Your task to perform on an android device: toggle notifications settings in the gmail app Image 0: 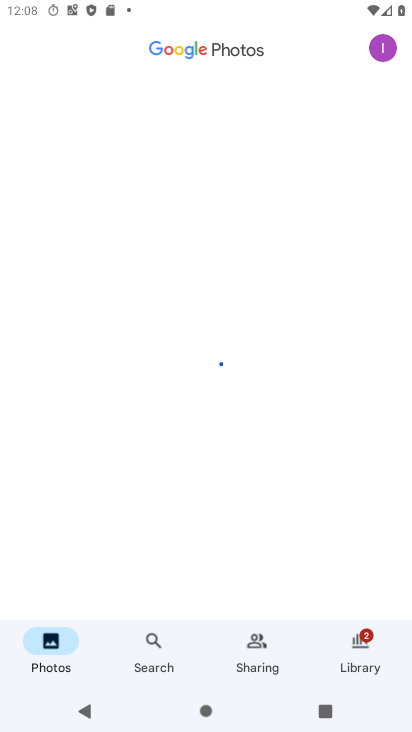
Step 0: press home button
Your task to perform on an android device: toggle notifications settings in the gmail app Image 1: 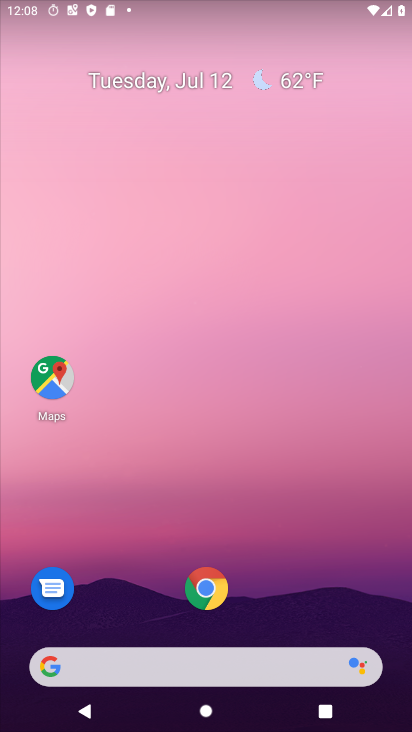
Step 1: drag from (180, 438) to (180, 261)
Your task to perform on an android device: toggle notifications settings in the gmail app Image 2: 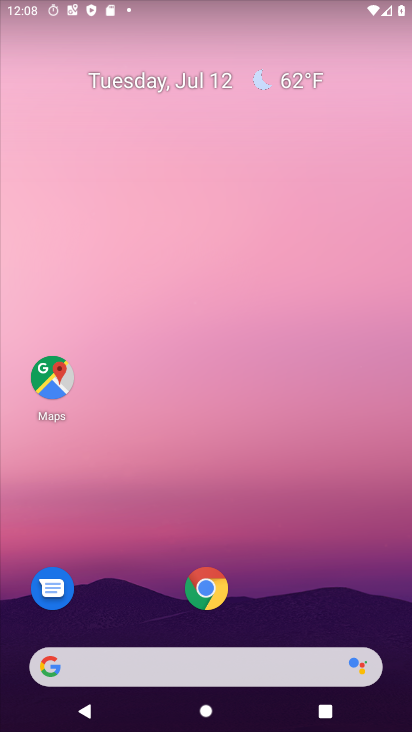
Step 2: drag from (124, 396) to (54, 162)
Your task to perform on an android device: toggle notifications settings in the gmail app Image 3: 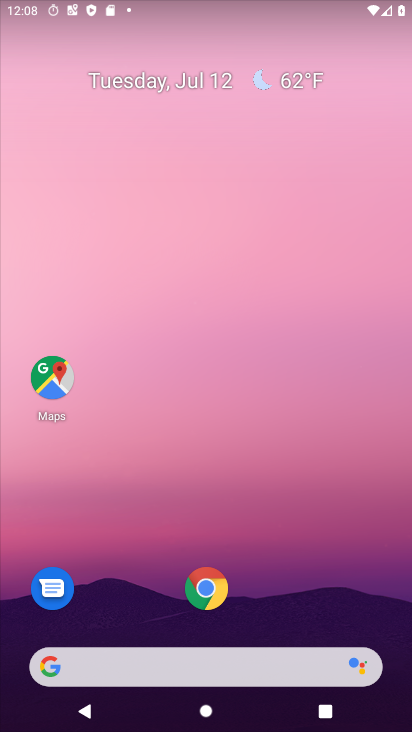
Step 3: drag from (211, 253) to (211, 210)
Your task to perform on an android device: toggle notifications settings in the gmail app Image 4: 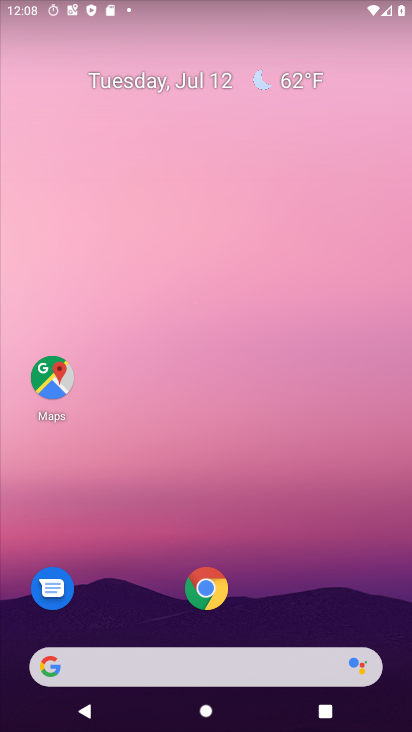
Step 4: drag from (228, 430) to (217, 78)
Your task to perform on an android device: toggle notifications settings in the gmail app Image 5: 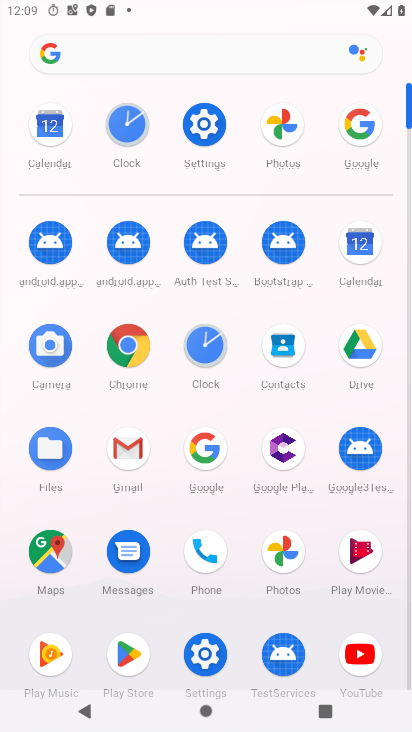
Step 5: click (136, 468)
Your task to perform on an android device: toggle notifications settings in the gmail app Image 6: 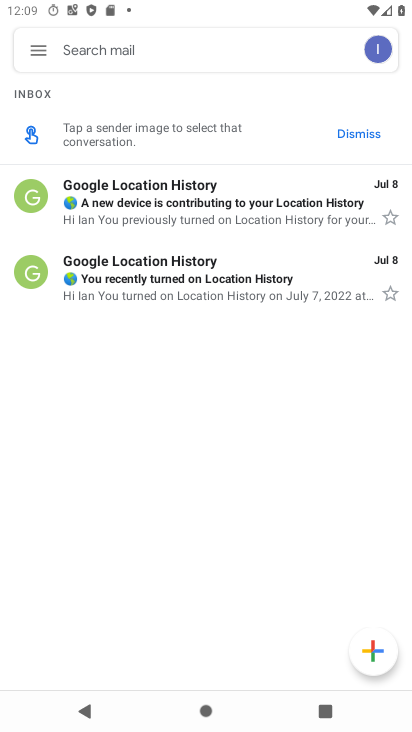
Step 6: click (39, 49)
Your task to perform on an android device: toggle notifications settings in the gmail app Image 7: 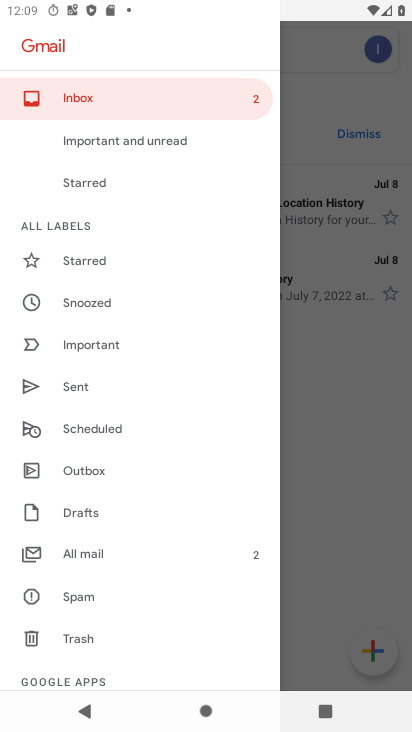
Step 7: drag from (121, 620) to (166, 368)
Your task to perform on an android device: toggle notifications settings in the gmail app Image 8: 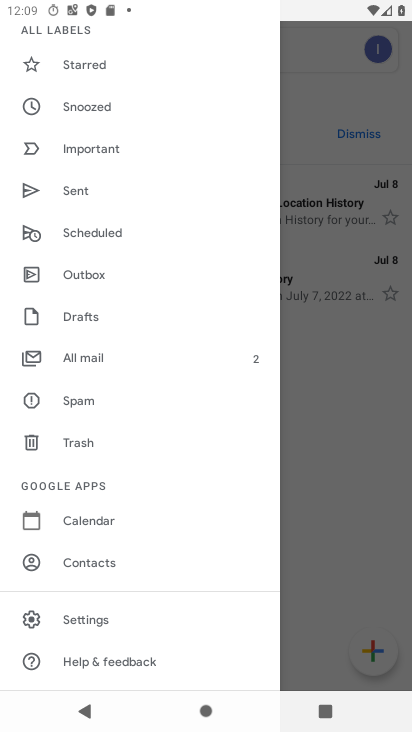
Step 8: click (73, 619)
Your task to perform on an android device: toggle notifications settings in the gmail app Image 9: 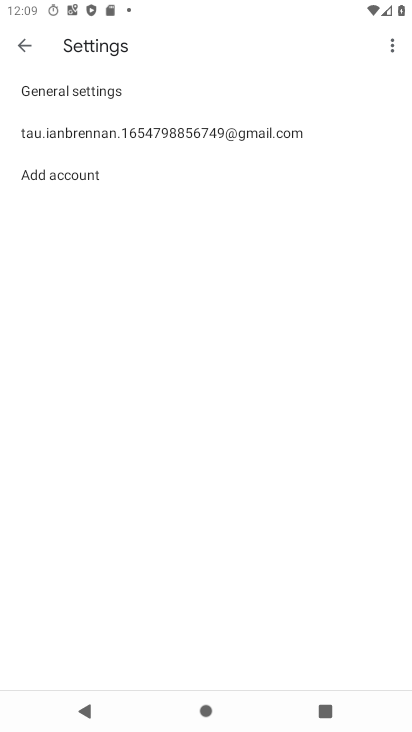
Step 9: click (139, 130)
Your task to perform on an android device: toggle notifications settings in the gmail app Image 10: 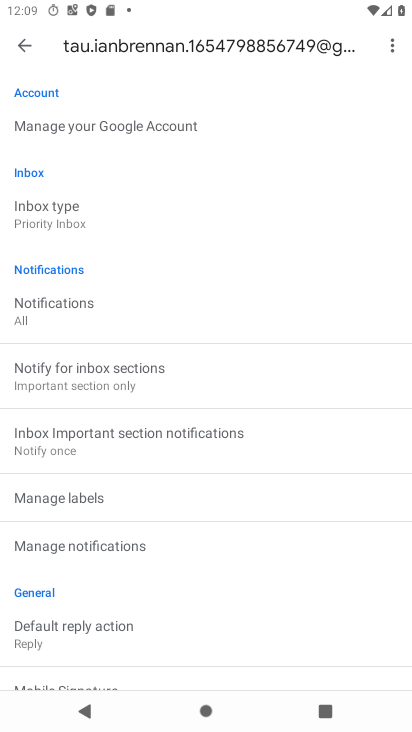
Step 10: click (116, 545)
Your task to perform on an android device: toggle notifications settings in the gmail app Image 11: 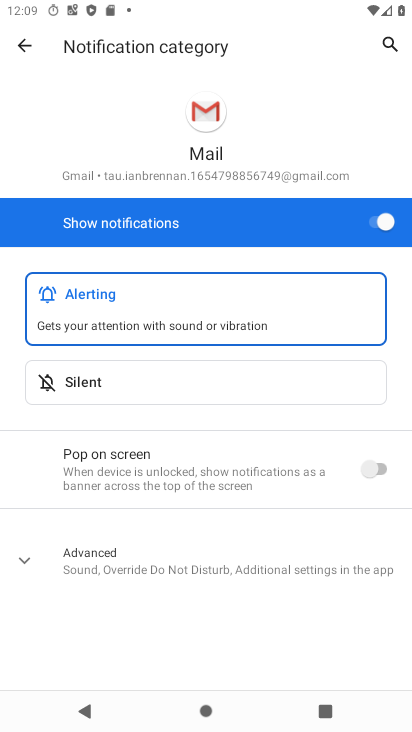
Step 11: task complete